Your task to perform on an android device: turn off javascript in the chrome app Image 0: 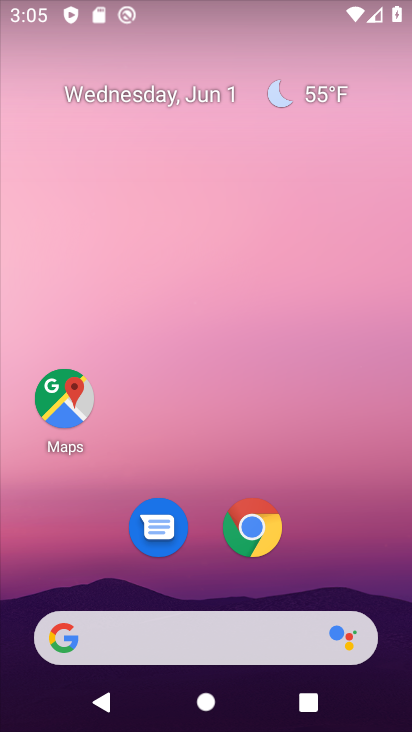
Step 0: press home button
Your task to perform on an android device: turn off javascript in the chrome app Image 1: 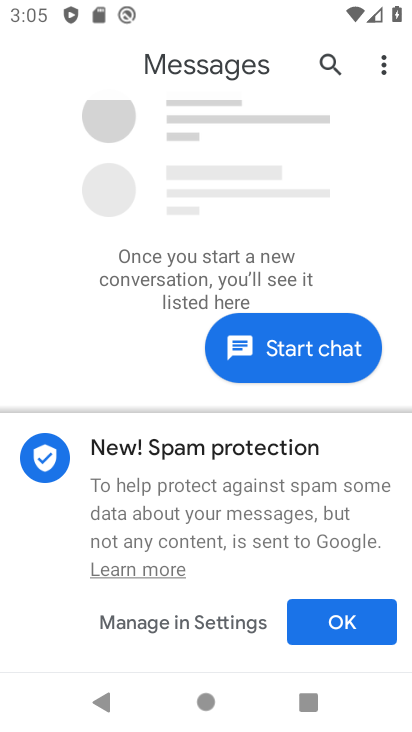
Step 1: drag from (364, 556) to (373, 150)
Your task to perform on an android device: turn off javascript in the chrome app Image 2: 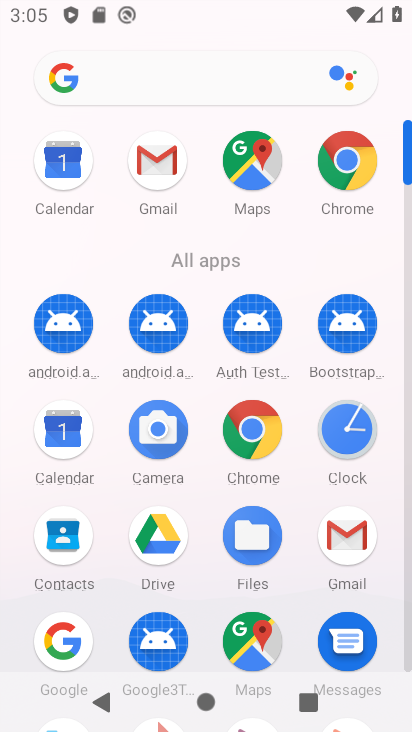
Step 2: click (238, 431)
Your task to perform on an android device: turn off javascript in the chrome app Image 3: 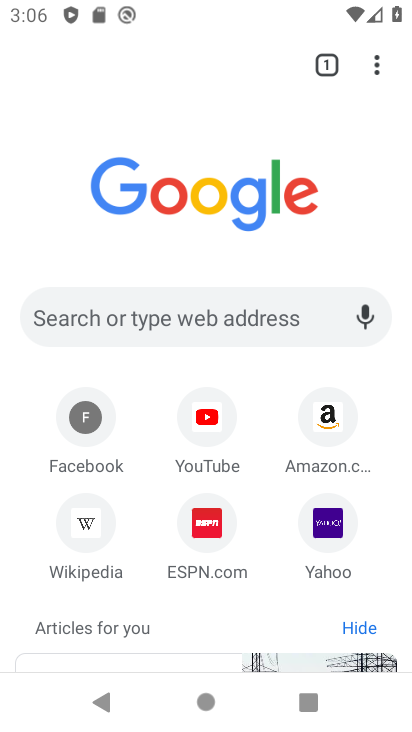
Step 3: drag from (366, 65) to (182, 534)
Your task to perform on an android device: turn off javascript in the chrome app Image 4: 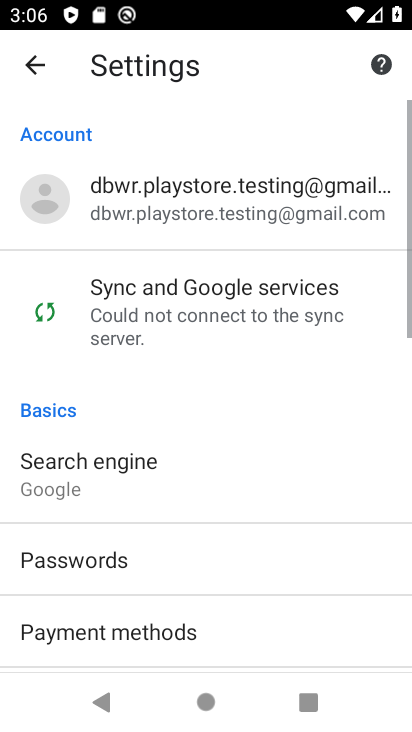
Step 4: drag from (203, 555) to (279, 221)
Your task to perform on an android device: turn off javascript in the chrome app Image 5: 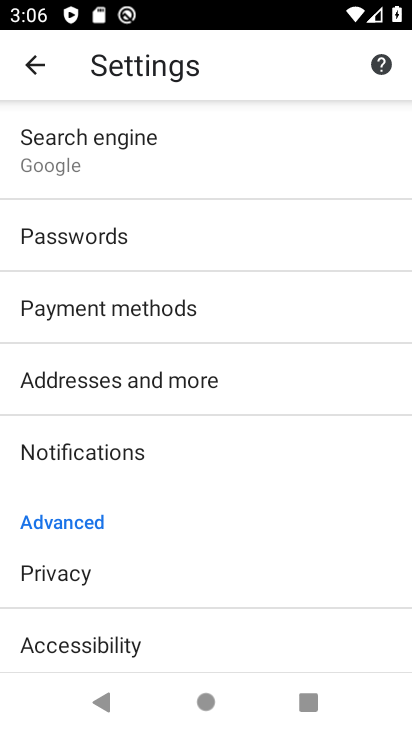
Step 5: drag from (157, 554) to (274, 240)
Your task to perform on an android device: turn off javascript in the chrome app Image 6: 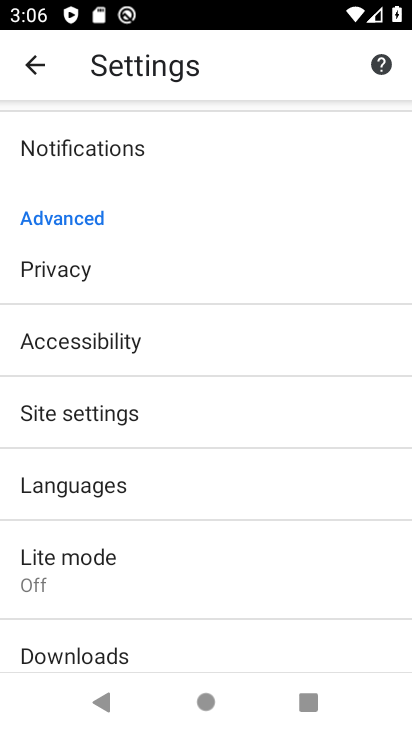
Step 6: click (164, 407)
Your task to perform on an android device: turn off javascript in the chrome app Image 7: 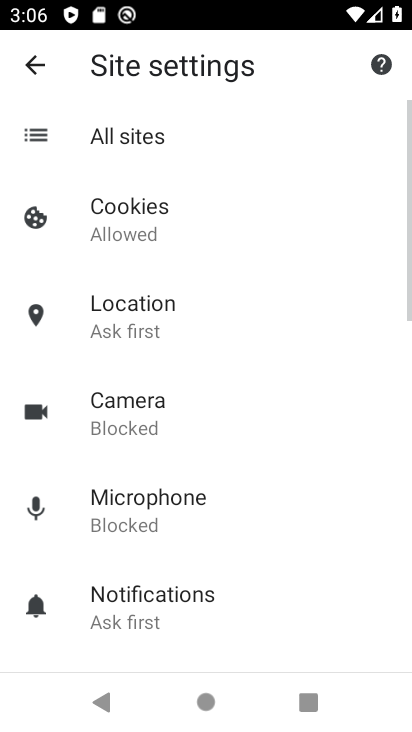
Step 7: drag from (168, 555) to (209, 398)
Your task to perform on an android device: turn off javascript in the chrome app Image 8: 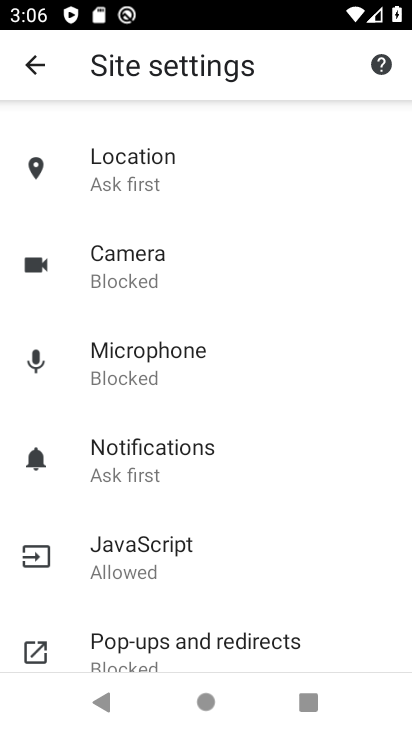
Step 8: click (155, 558)
Your task to perform on an android device: turn off javascript in the chrome app Image 9: 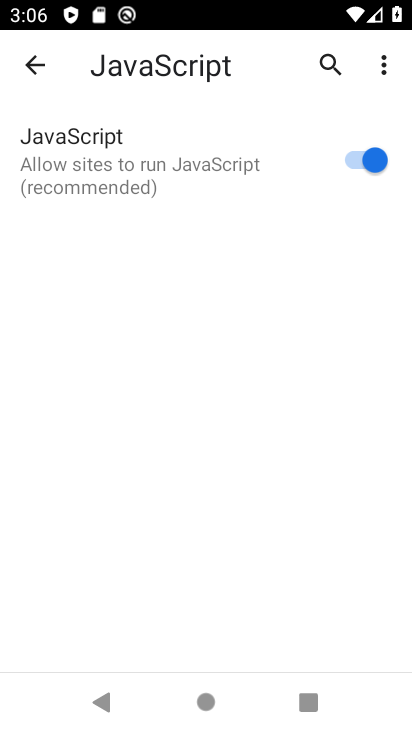
Step 9: click (147, 152)
Your task to perform on an android device: turn off javascript in the chrome app Image 10: 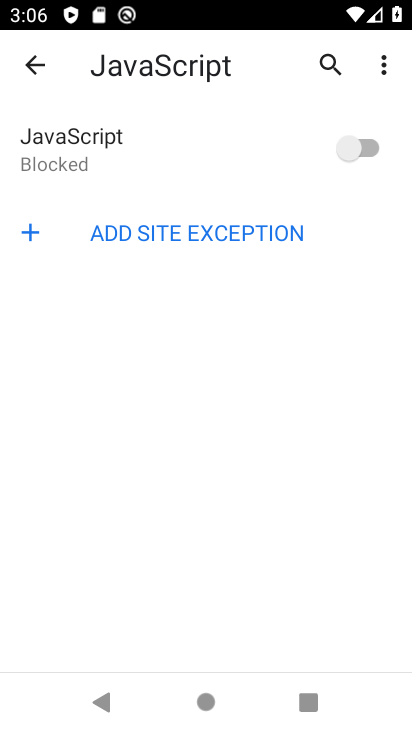
Step 10: task complete